Your task to perform on an android device: turn pop-ups off in chrome Image 0: 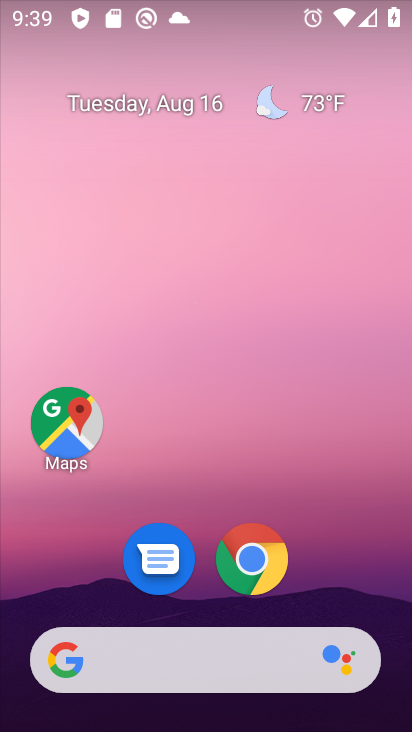
Step 0: click (252, 560)
Your task to perform on an android device: turn pop-ups off in chrome Image 1: 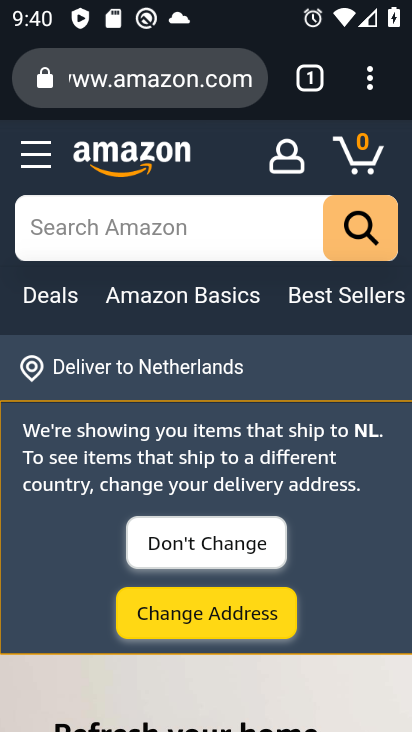
Step 1: click (382, 82)
Your task to perform on an android device: turn pop-ups off in chrome Image 2: 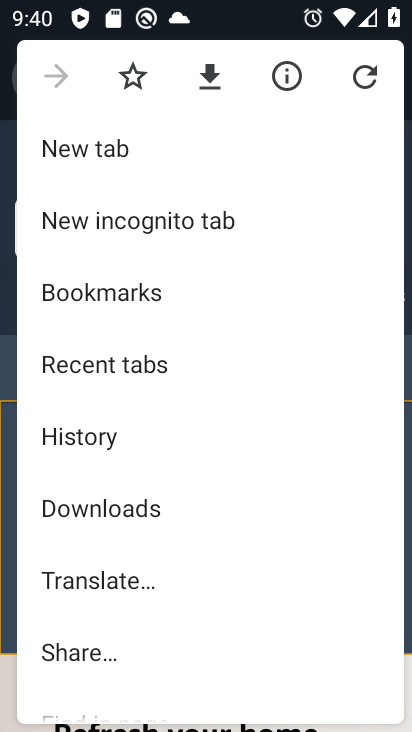
Step 2: drag from (148, 423) to (182, 340)
Your task to perform on an android device: turn pop-ups off in chrome Image 3: 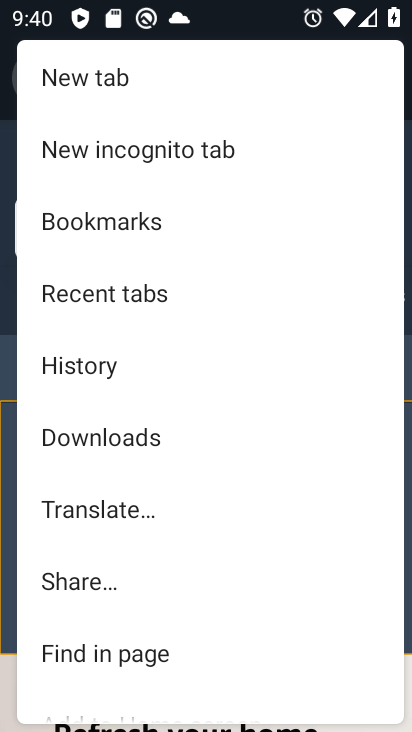
Step 3: drag from (138, 459) to (179, 364)
Your task to perform on an android device: turn pop-ups off in chrome Image 4: 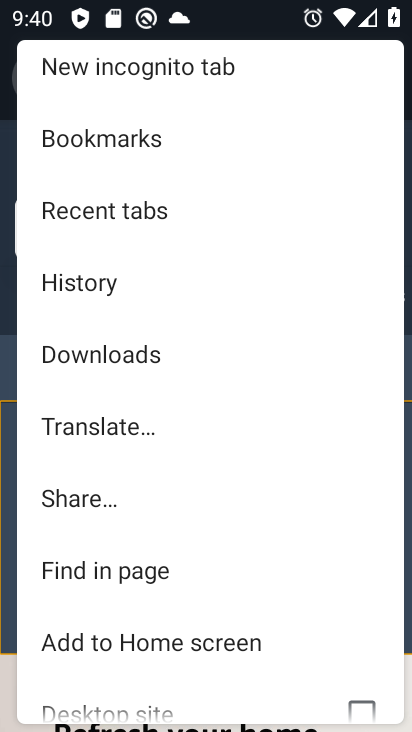
Step 4: drag from (147, 462) to (194, 368)
Your task to perform on an android device: turn pop-ups off in chrome Image 5: 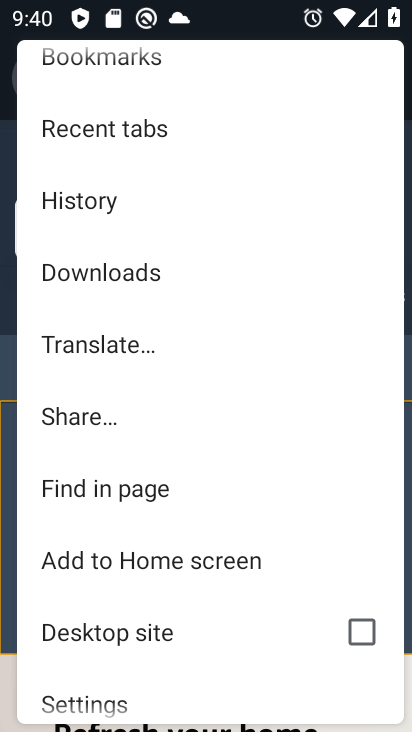
Step 5: drag from (141, 507) to (186, 408)
Your task to perform on an android device: turn pop-ups off in chrome Image 6: 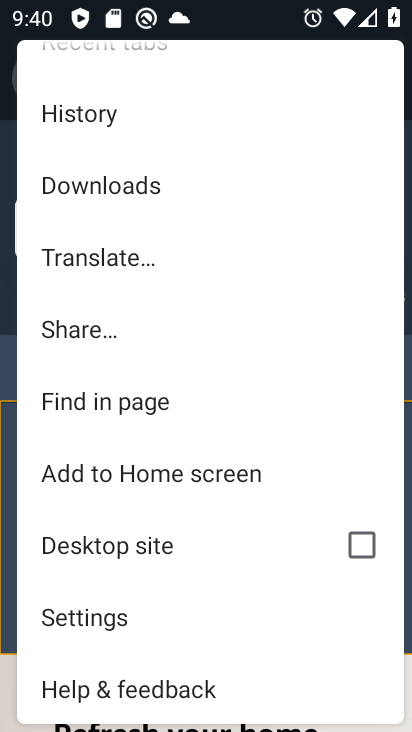
Step 6: drag from (146, 559) to (201, 445)
Your task to perform on an android device: turn pop-ups off in chrome Image 7: 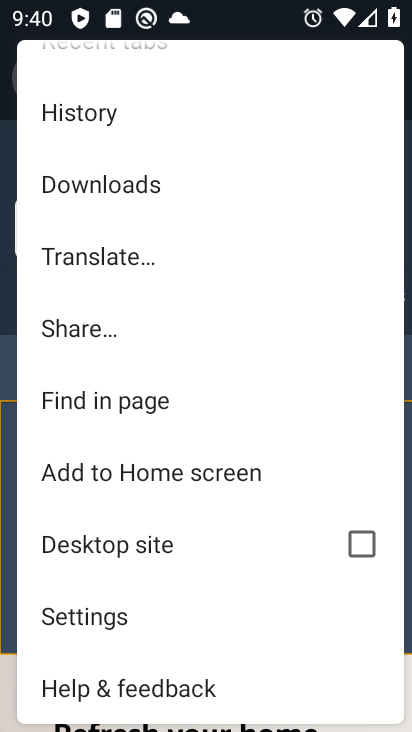
Step 7: click (120, 621)
Your task to perform on an android device: turn pop-ups off in chrome Image 8: 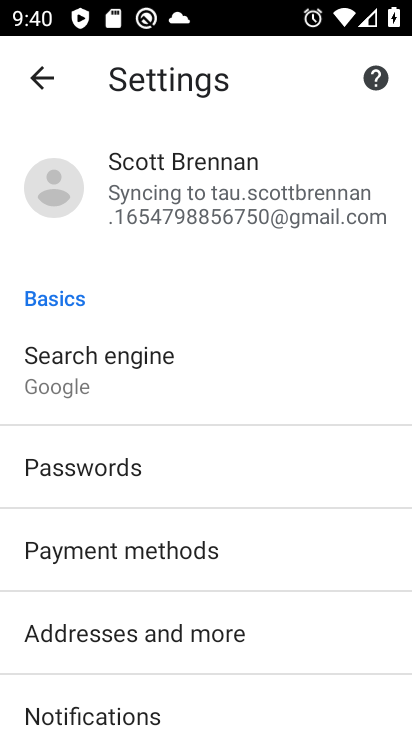
Step 8: drag from (199, 541) to (261, 431)
Your task to perform on an android device: turn pop-ups off in chrome Image 9: 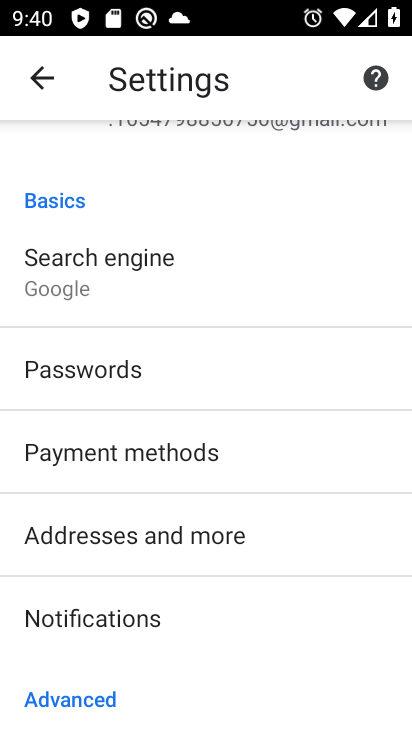
Step 9: drag from (186, 572) to (279, 459)
Your task to perform on an android device: turn pop-ups off in chrome Image 10: 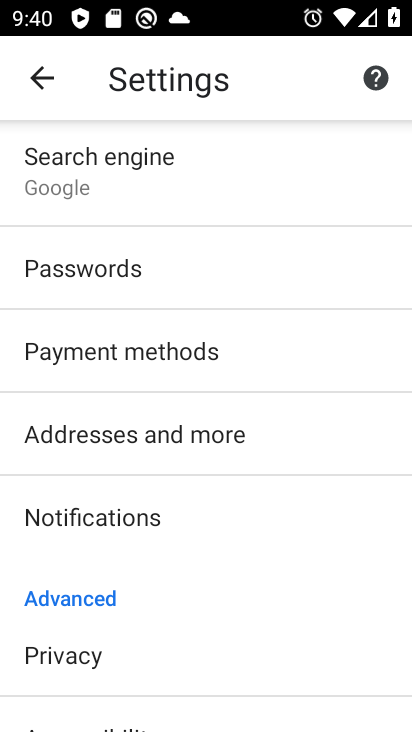
Step 10: drag from (180, 614) to (236, 477)
Your task to perform on an android device: turn pop-ups off in chrome Image 11: 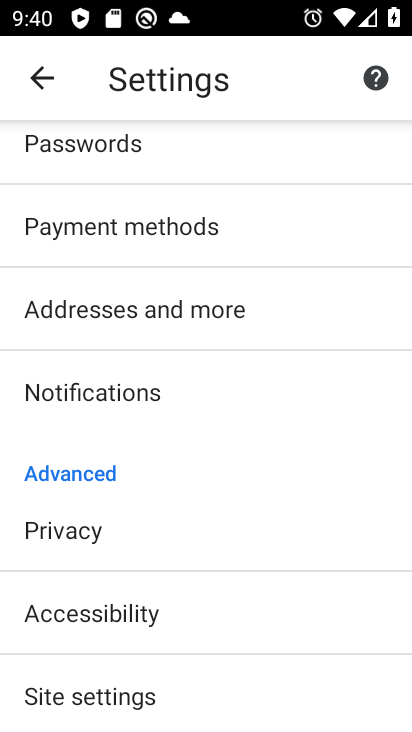
Step 11: drag from (210, 615) to (251, 521)
Your task to perform on an android device: turn pop-ups off in chrome Image 12: 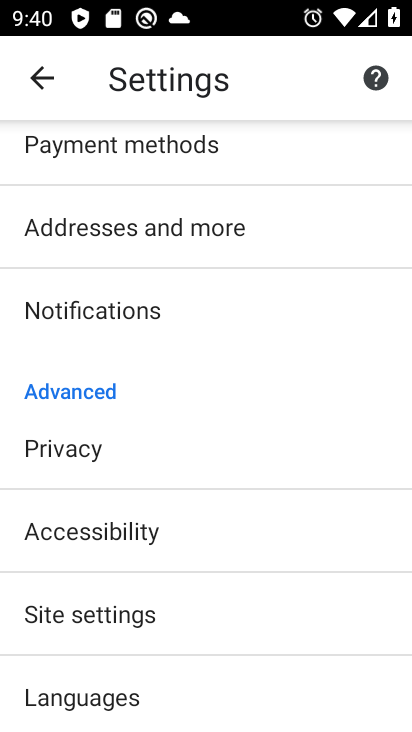
Step 12: click (152, 612)
Your task to perform on an android device: turn pop-ups off in chrome Image 13: 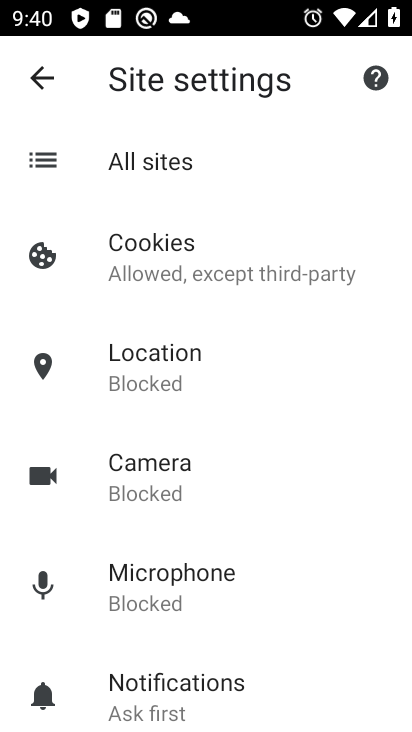
Step 13: drag from (193, 597) to (255, 480)
Your task to perform on an android device: turn pop-ups off in chrome Image 14: 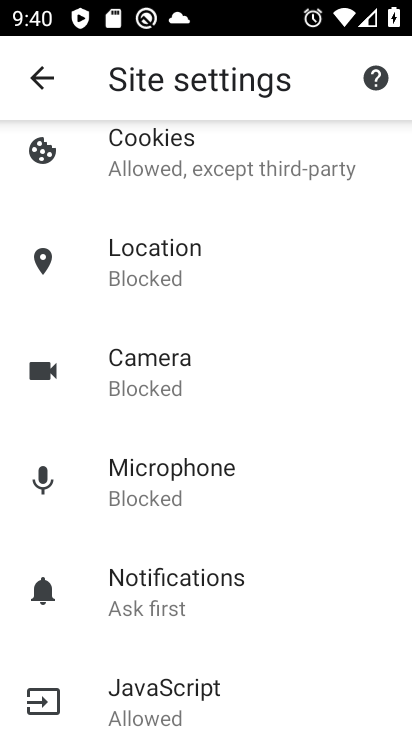
Step 14: drag from (220, 600) to (255, 509)
Your task to perform on an android device: turn pop-ups off in chrome Image 15: 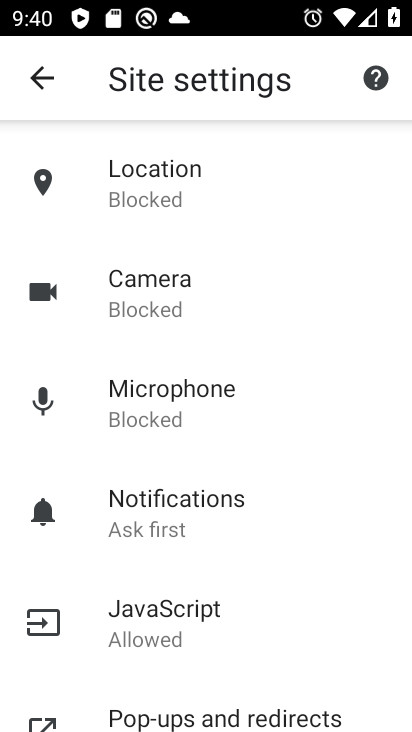
Step 15: drag from (197, 649) to (260, 516)
Your task to perform on an android device: turn pop-ups off in chrome Image 16: 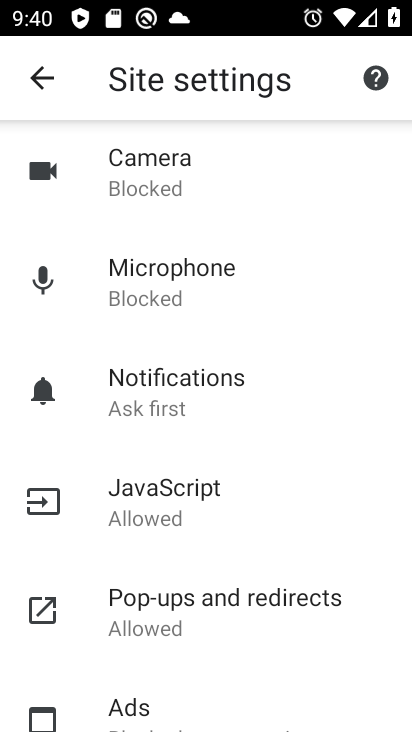
Step 16: click (201, 590)
Your task to perform on an android device: turn pop-ups off in chrome Image 17: 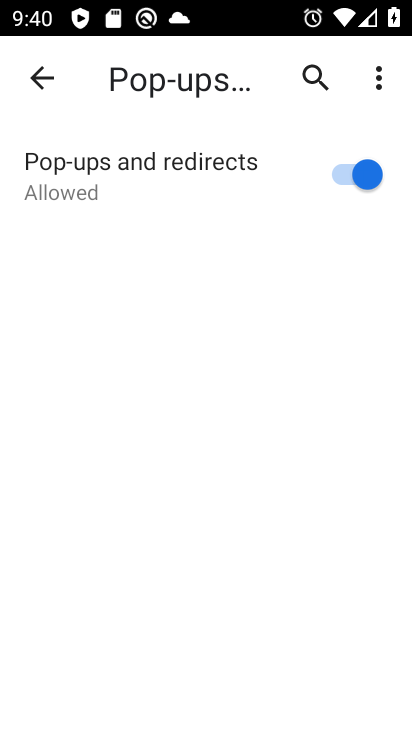
Step 17: click (341, 179)
Your task to perform on an android device: turn pop-ups off in chrome Image 18: 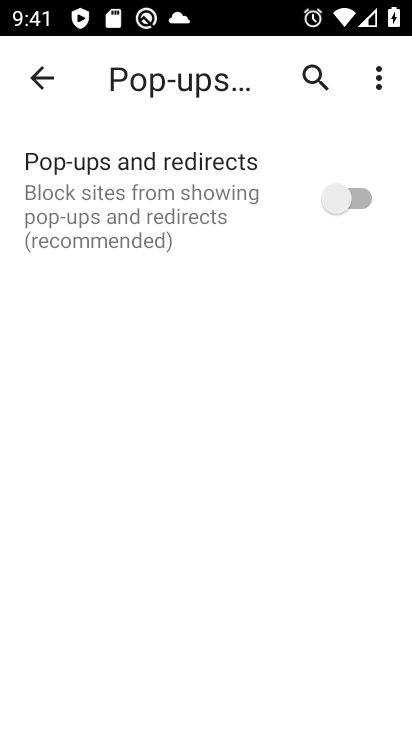
Step 18: task complete